Your task to perform on an android device: What's the weather? Image 0: 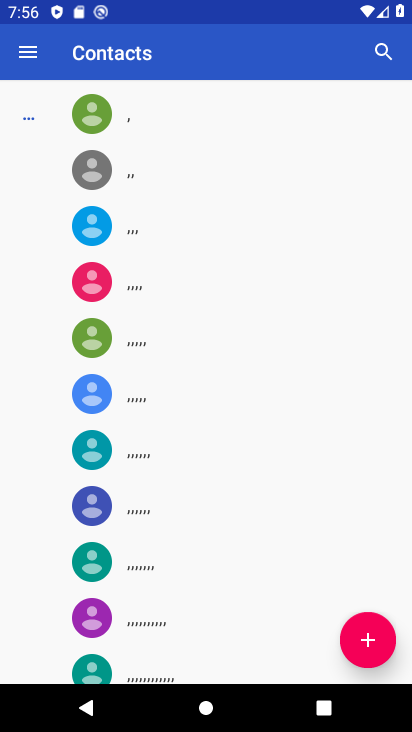
Step 0: press home button
Your task to perform on an android device: What's the weather? Image 1: 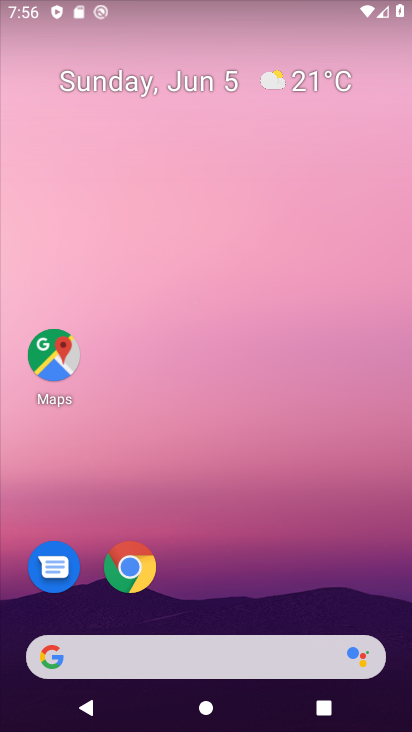
Step 1: drag from (135, 637) to (191, 167)
Your task to perform on an android device: What's the weather? Image 2: 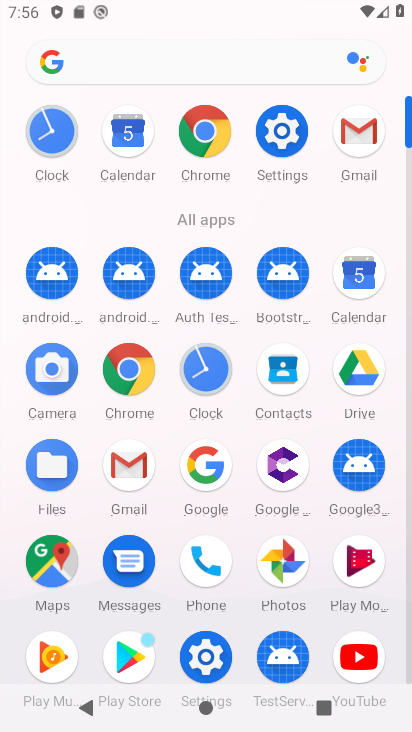
Step 2: click (208, 464)
Your task to perform on an android device: What's the weather? Image 3: 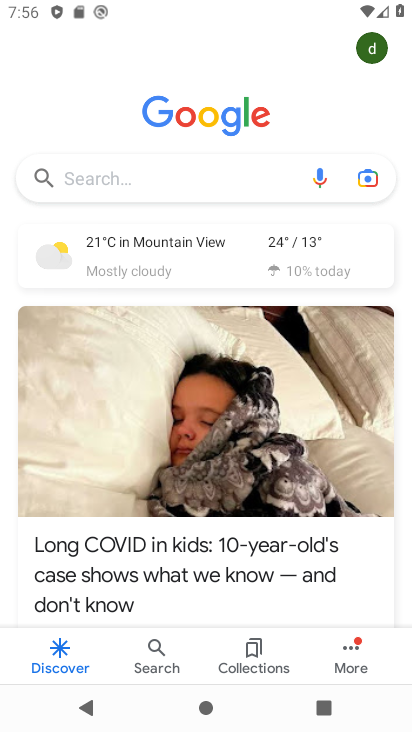
Step 3: click (139, 256)
Your task to perform on an android device: What's the weather? Image 4: 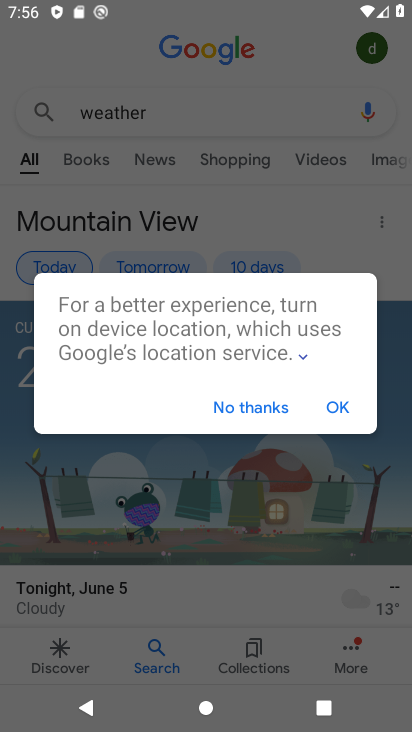
Step 4: click (340, 408)
Your task to perform on an android device: What's the weather? Image 5: 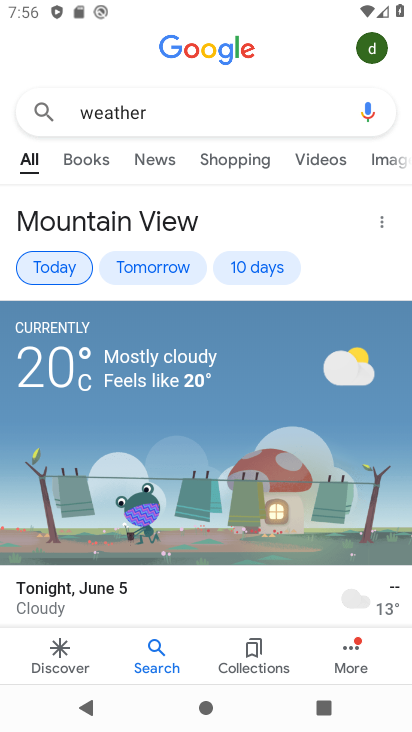
Step 5: task complete